Your task to perform on an android device: manage bookmarks in the chrome app Image 0: 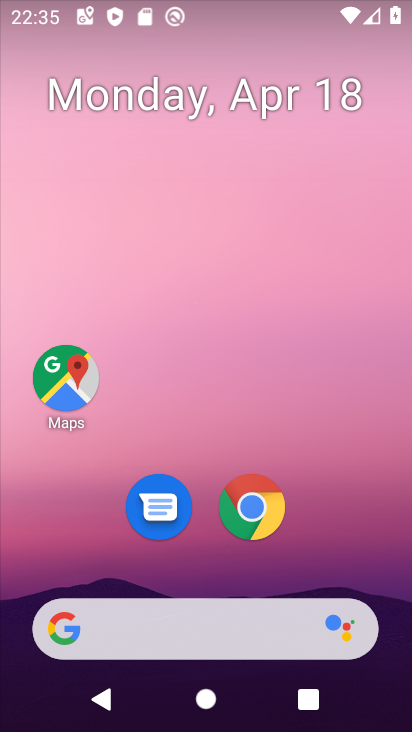
Step 0: click (262, 518)
Your task to perform on an android device: manage bookmarks in the chrome app Image 1: 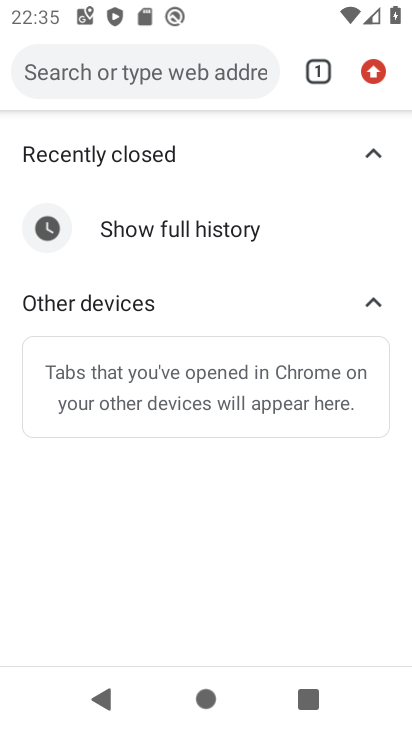
Step 1: click (381, 70)
Your task to perform on an android device: manage bookmarks in the chrome app Image 2: 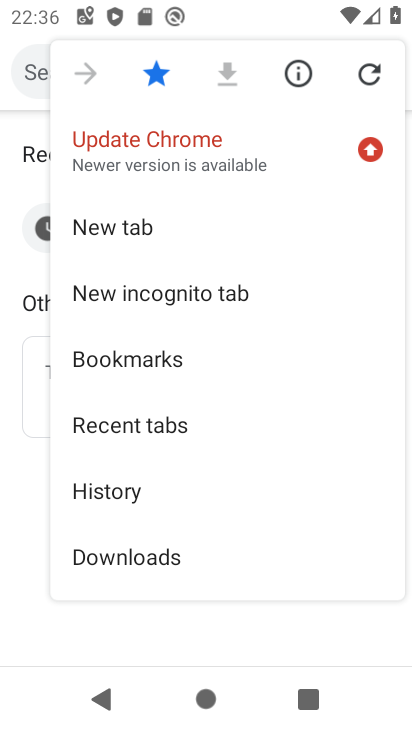
Step 2: click (373, 64)
Your task to perform on an android device: manage bookmarks in the chrome app Image 3: 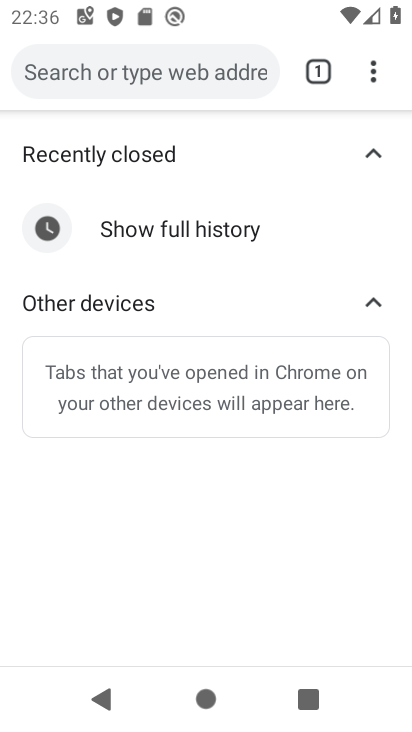
Step 3: drag from (373, 64) to (155, 354)
Your task to perform on an android device: manage bookmarks in the chrome app Image 4: 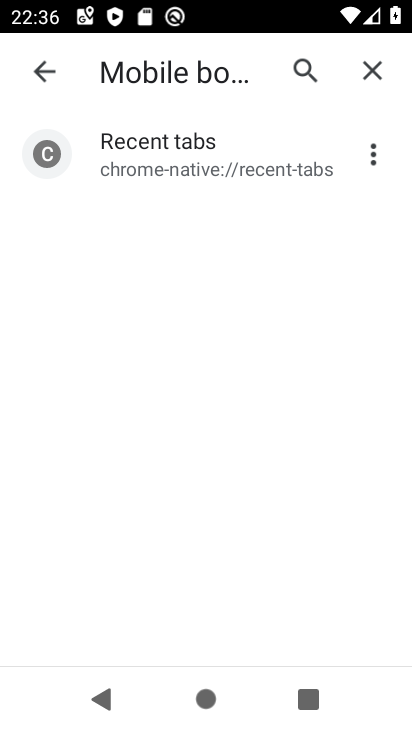
Step 4: click (374, 149)
Your task to perform on an android device: manage bookmarks in the chrome app Image 5: 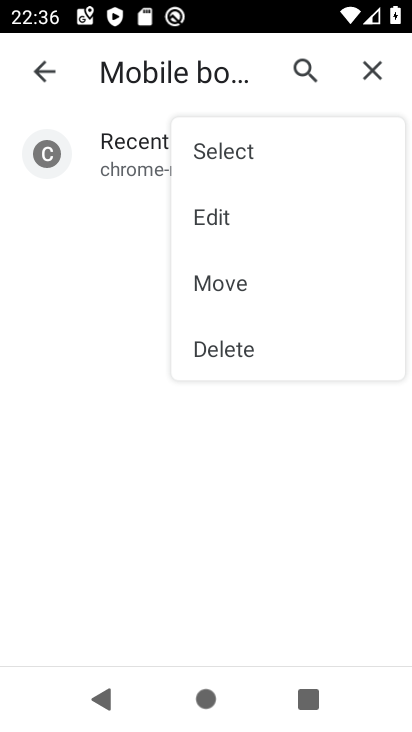
Step 5: click (288, 215)
Your task to perform on an android device: manage bookmarks in the chrome app Image 6: 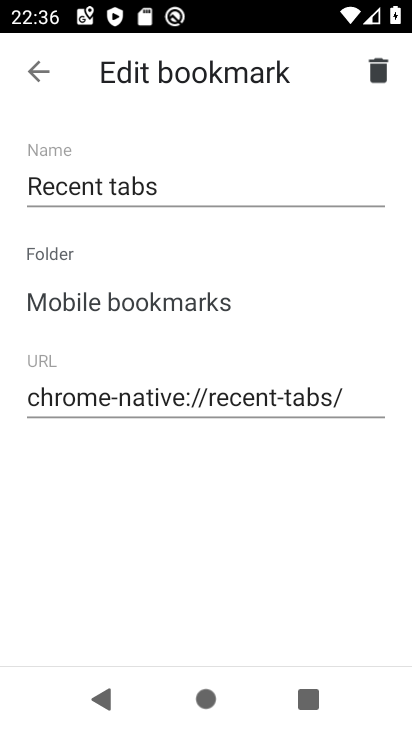
Step 6: click (43, 65)
Your task to perform on an android device: manage bookmarks in the chrome app Image 7: 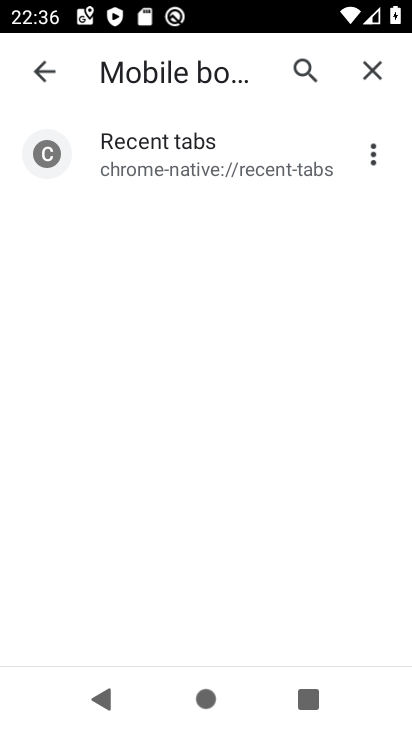
Step 7: task complete